Your task to perform on an android device: Open calendar and show me the first week of next month Image 0: 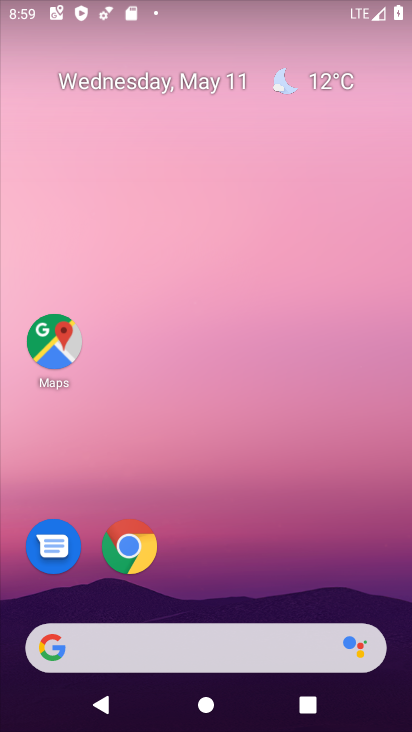
Step 0: drag from (397, 624) to (300, 56)
Your task to perform on an android device: Open calendar and show me the first week of next month Image 1: 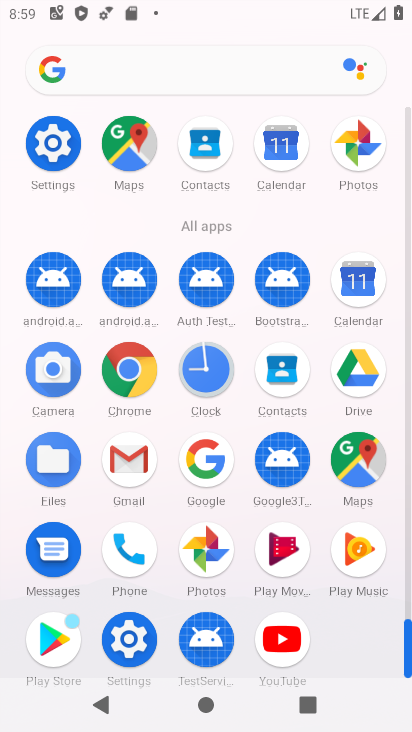
Step 1: click (410, 604)
Your task to perform on an android device: Open calendar and show me the first week of next month Image 2: 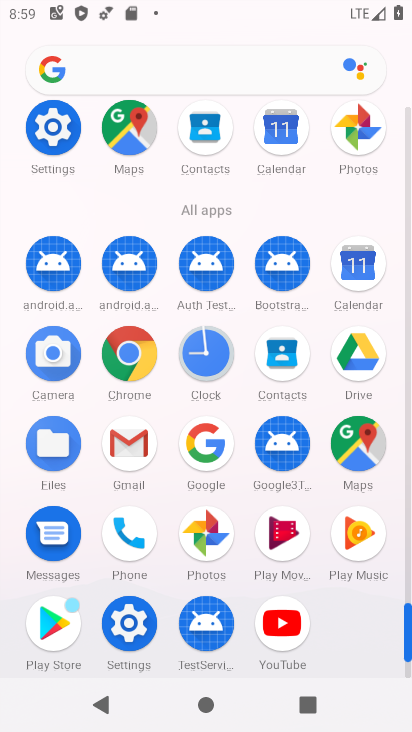
Step 2: click (358, 265)
Your task to perform on an android device: Open calendar and show me the first week of next month Image 3: 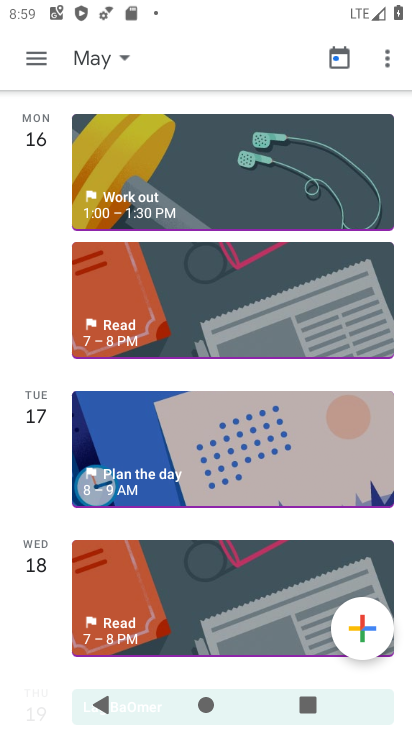
Step 3: click (30, 65)
Your task to perform on an android device: Open calendar and show me the first week of next month Image 4: 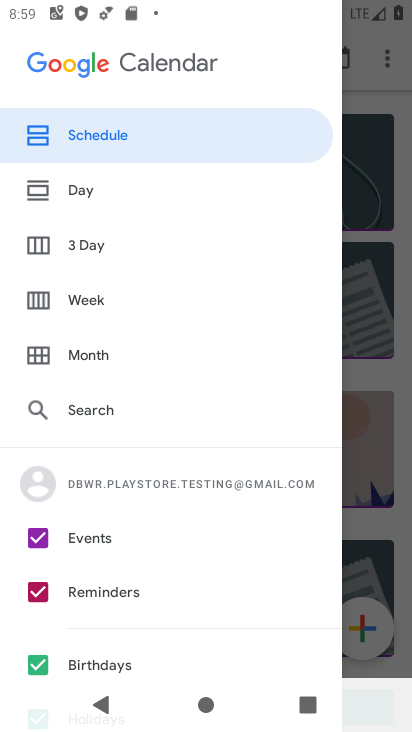
Step 4: click (94, 296)
Your task to perform on an android device: Open calendar and show me the first week of next month Image 5: 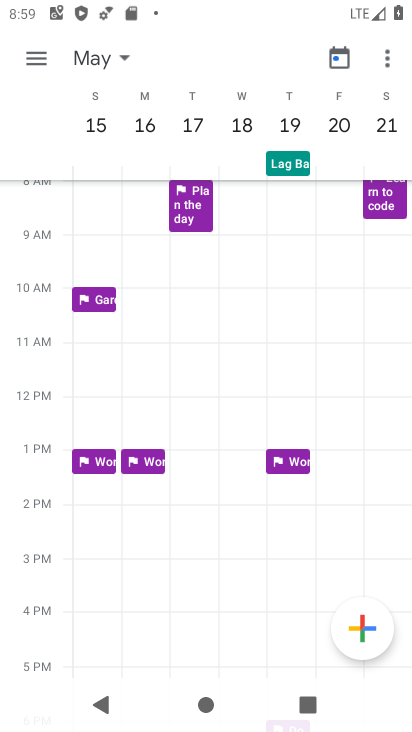
Step 5: click (126, 62)
Your task to perform on an android device: Open calendar and show me the first week of next month Image 6: 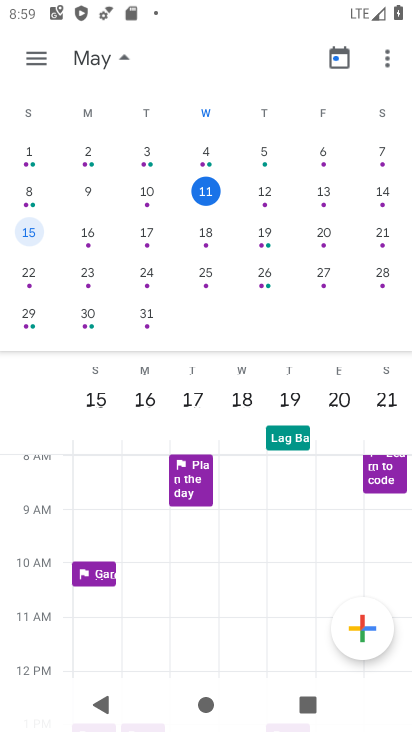
Step 6: drag from (391, 260) to (10, 156)
Your task to perform on an android device: Open calendar and show me the first week of next month Image 7: 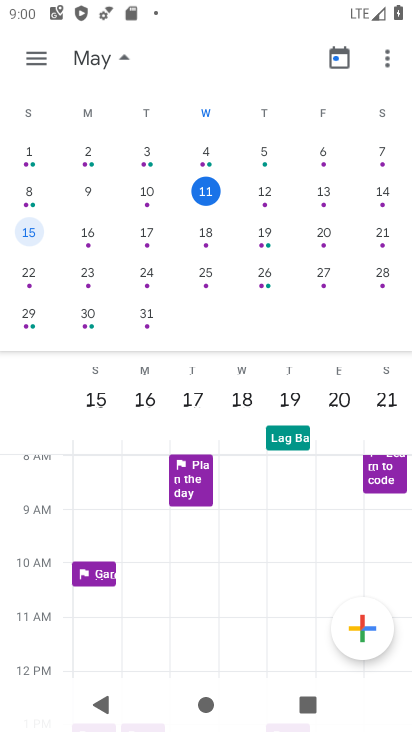
Step 7: drag from (383, 251) to (7, 166)
Your task to perform on an android device: Open calendar and show me the first week of next month Image 8: 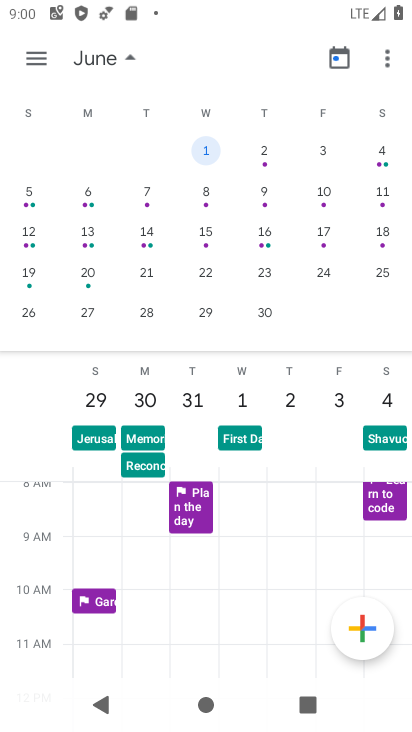
Step 8: click (212, 146)
Your task to perform on an android device: Open calendar and show me the first week of next month Image 9: 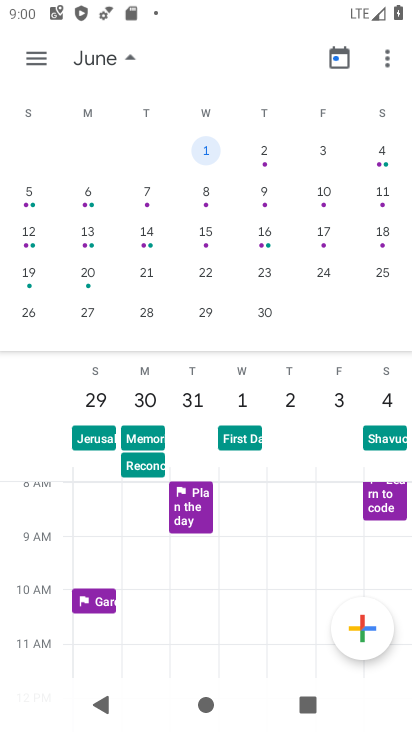
Step 9: task complete